Your task to perform on an android device: change text size in settings app Image 0: 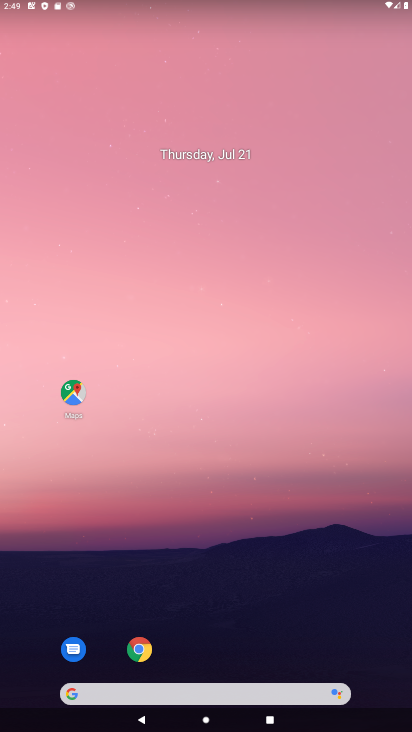
Step 0: drag from (253, 660) to (330, 89)
Your task to perform on an android device: change text size in settings app Image 1: 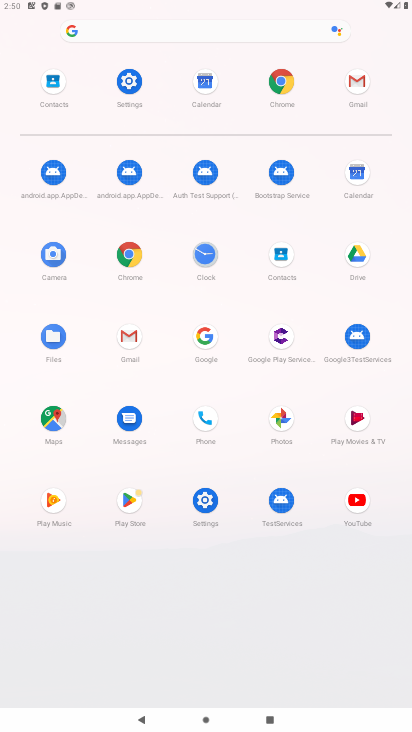
Step 1: click (140, 99)
Your task to perform on an android device: change text size in settings app Image 2: 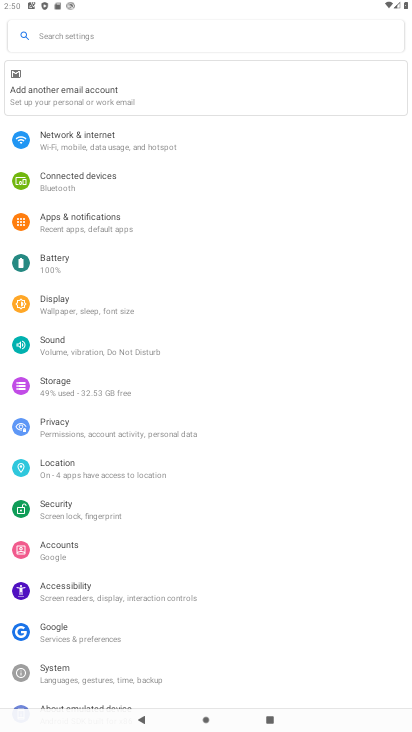
Step 2: click (115, 317)
Your task to perform on an android device: change text size in settings app Image 3: 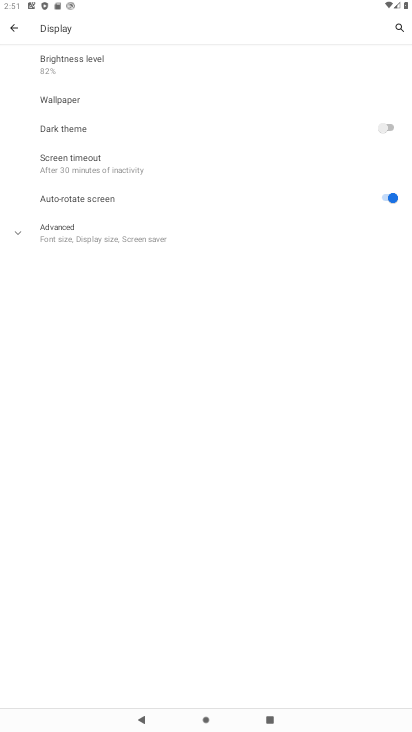
Step 3: task complete